Your task to perform on an android device: Clear all items from cart on target. Search for corsair k70 on target, select the first entry, add it to the cart, then select checkout. Image 0: 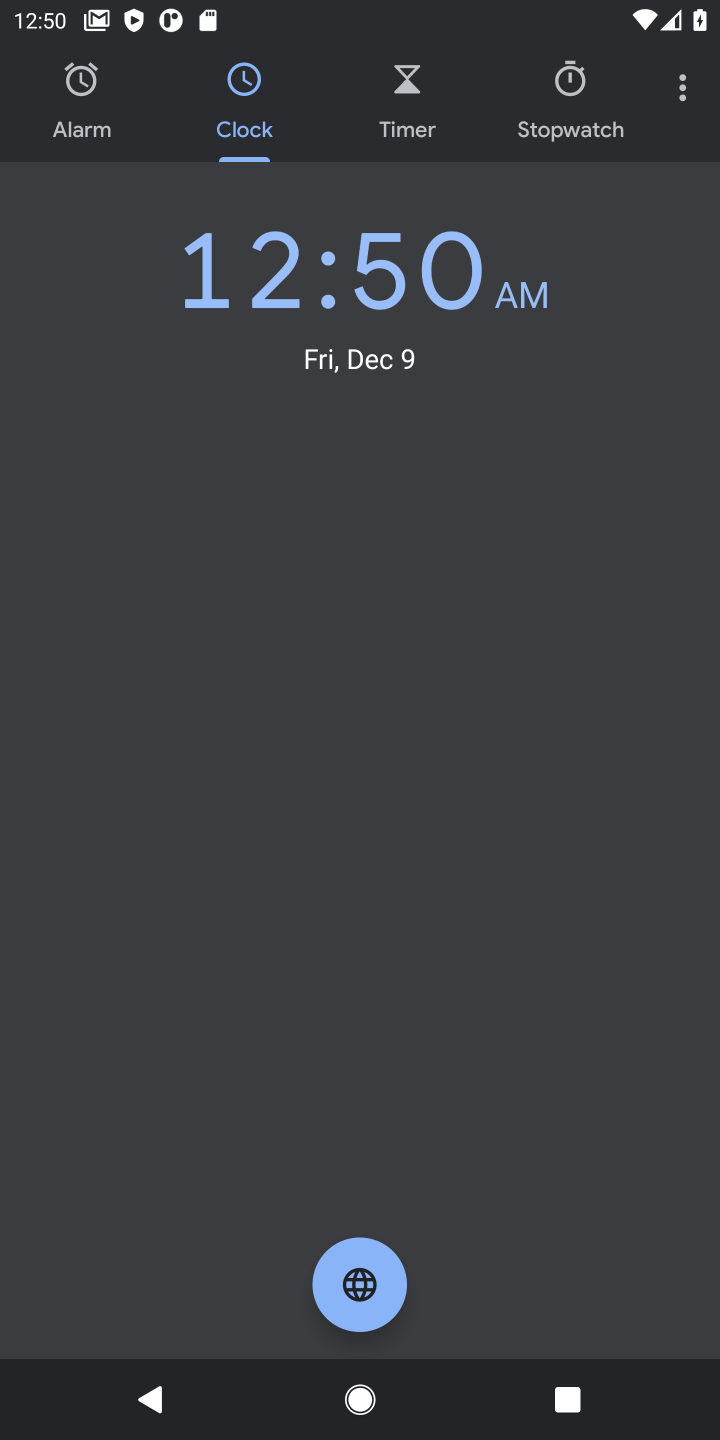
Step 0: task complete